Your task to perform on an android device: move a message to another label in the gmail app Image 0: 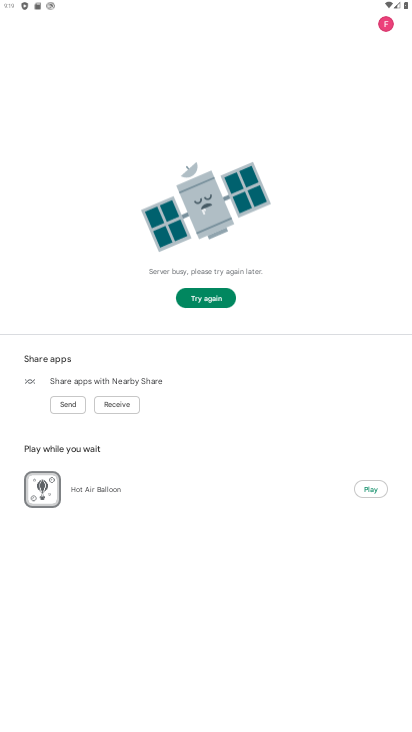
Step 0: press home button
Your task to perform on an android device: move a message to another label in the gmail app Image 1: 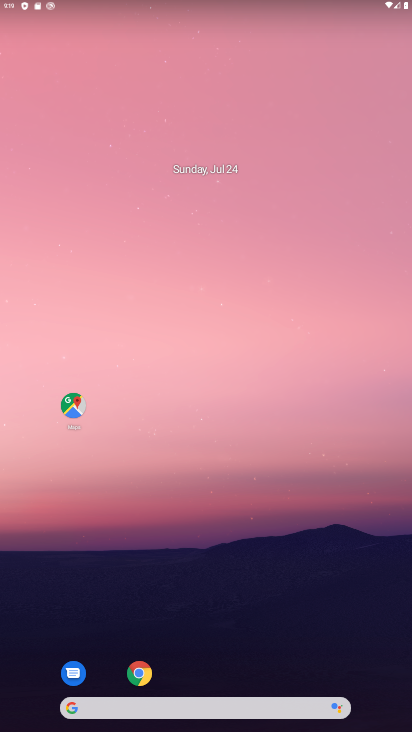
Step 1: drag from (251, 668) to (231, 53)
Your task to perform on an android device: move a message to another label in the gmail app Image 2: 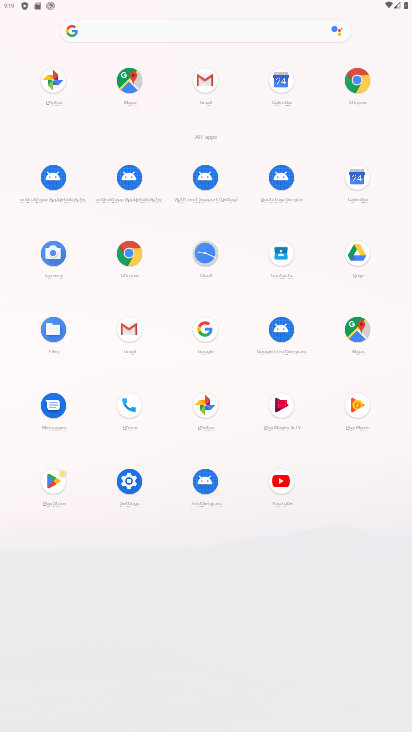
Step 2: click (136, 337)
Your task to perform on an android device: move a message to another label in the gmail app Image 3: 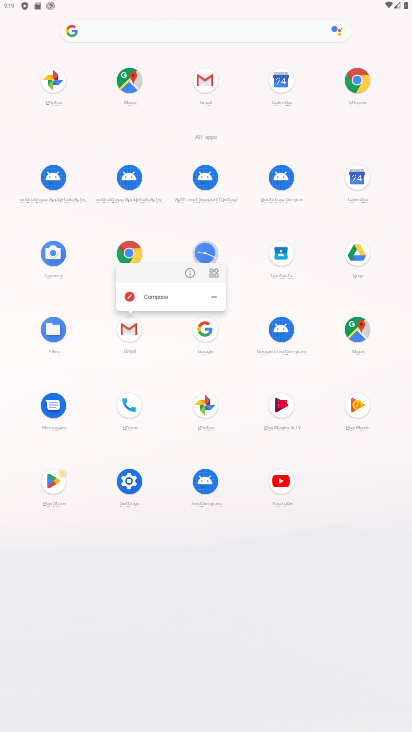
Step 3: click (124, 346)
Your task to perform on an android device: move a message to another label in the gmail app Image 4: 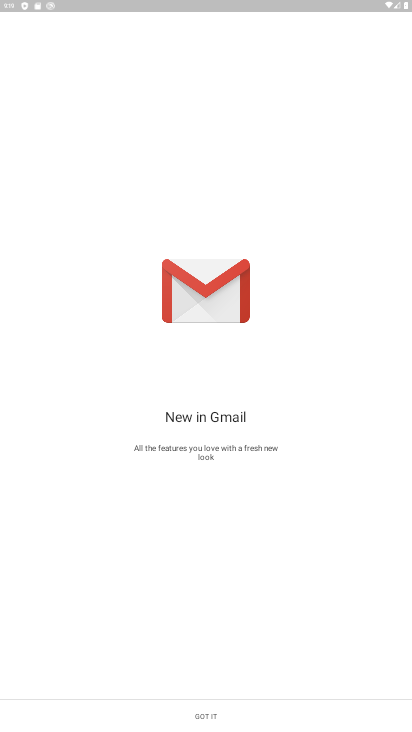
Step 4: click (215, 715)
Your task to perform on an android device: move a message to another label in the gmail app Image 5: 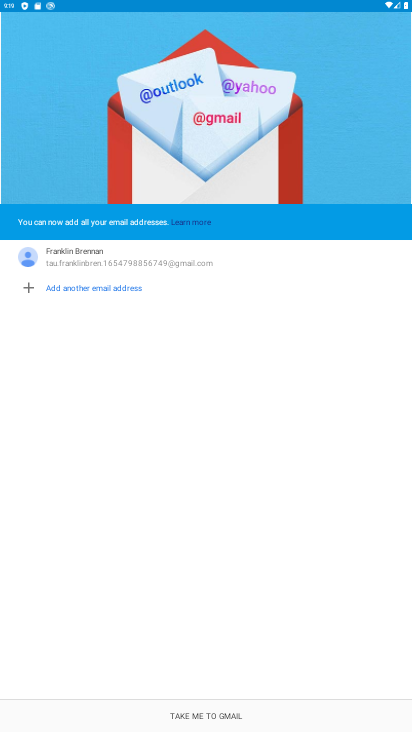
Step 5: click (207, 710)
Your task to perform on an android device: move a message to another label in the gmail app Image 6: 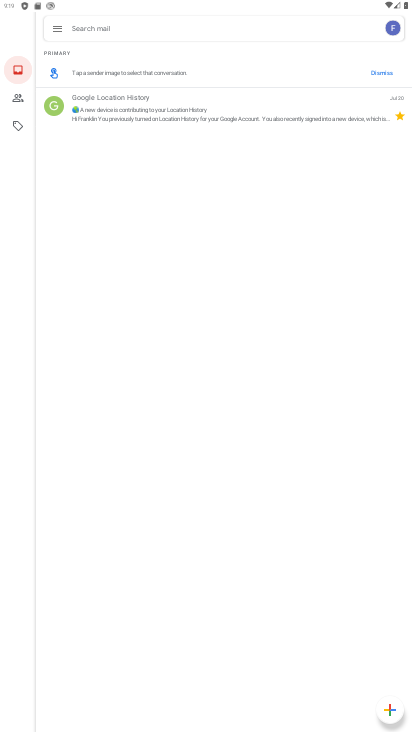
Step 6: click (55, 107)
Your task to perform on an android device: move a message to another label in the gmail app Image 7: 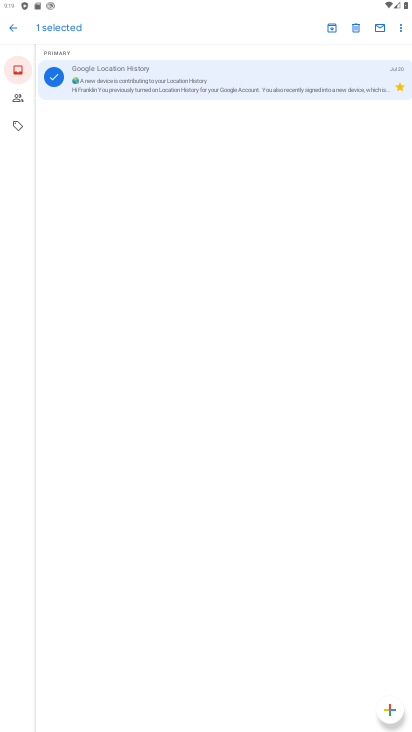
Step 7: click (399, 24)
Your task to perform on an android device: move a message to another label in the gmail app Image 8: 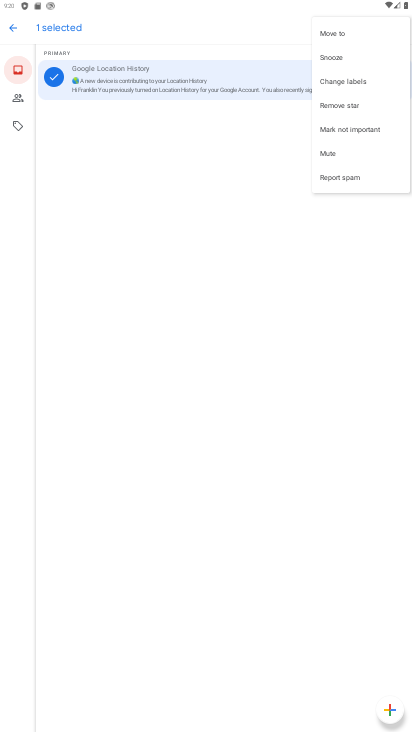
Step 8: click (358, 77)
Your task to perform on an android device: move a message to another label in the gmail app Image 9: 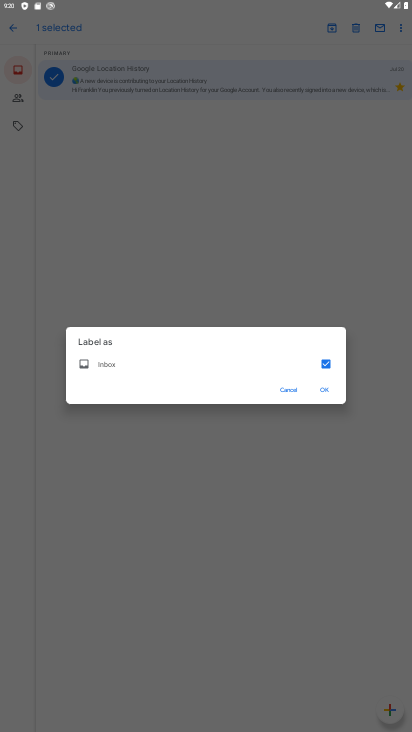
Step 9: click (318, 359)
Your task to perform on an android device: move a message to another label in the gmail app Image 10: 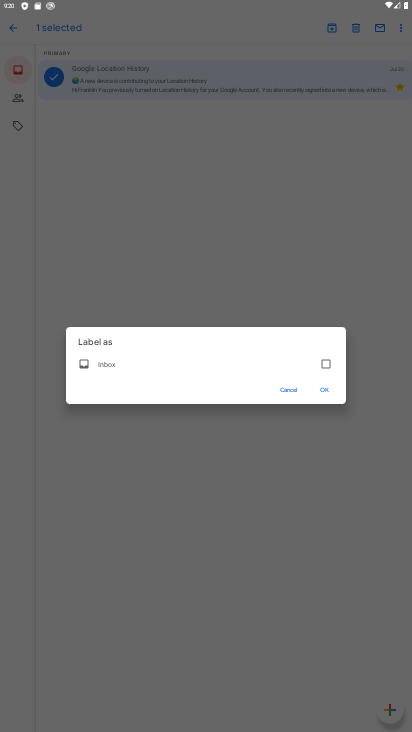
Step 10: click (320, 387)
Your task to perform on an android device: move a message to another label in the gmail app Image 11: 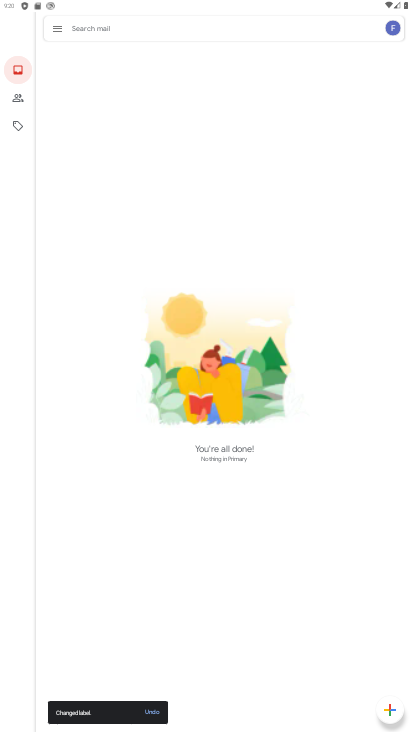
Step 11: task complete